Your task to perform on an android device: Search for the best rated lawnmower on Lowes.com Image 0: 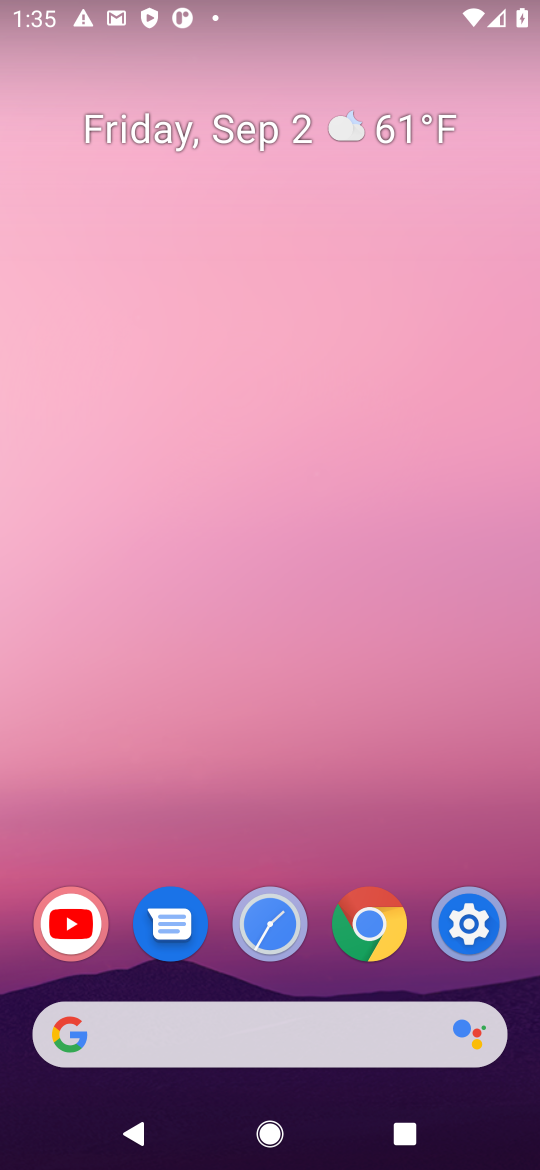
Step 0: click (368, 1033)
Your task to perform on an android device: Search for the best rated lawnmower on Lowes.com Image 1: 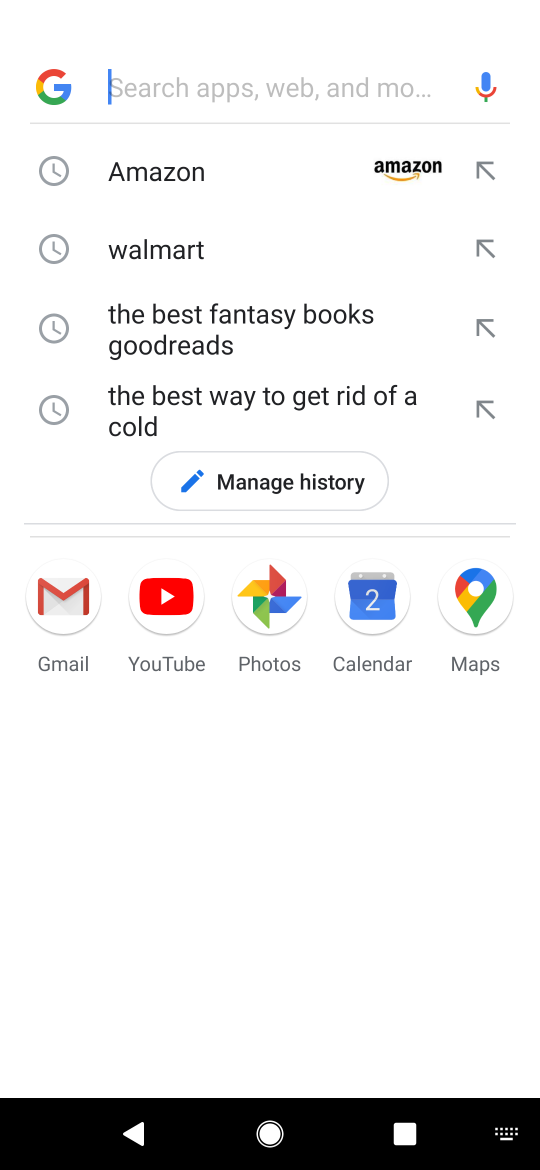
Step 1: press enter
Your task to perform on an android device: Search for the best rated lawnmower on Lowes.com Image 2: 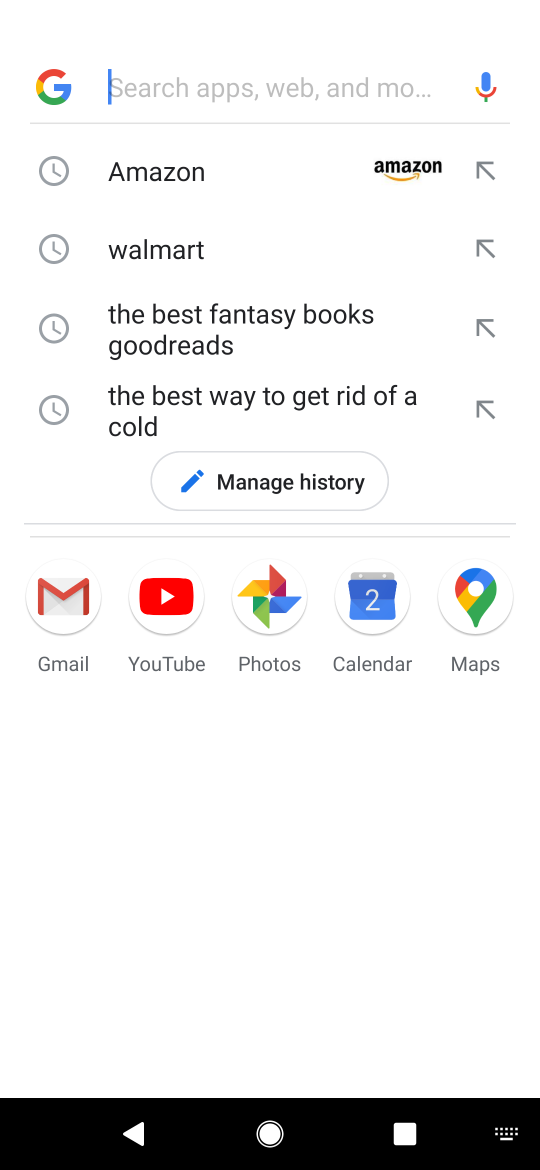
Step 2: type "lowes.com"
Your task to perform on an android device: Search for the best rated lawnmower on Lowes.com Image 3: 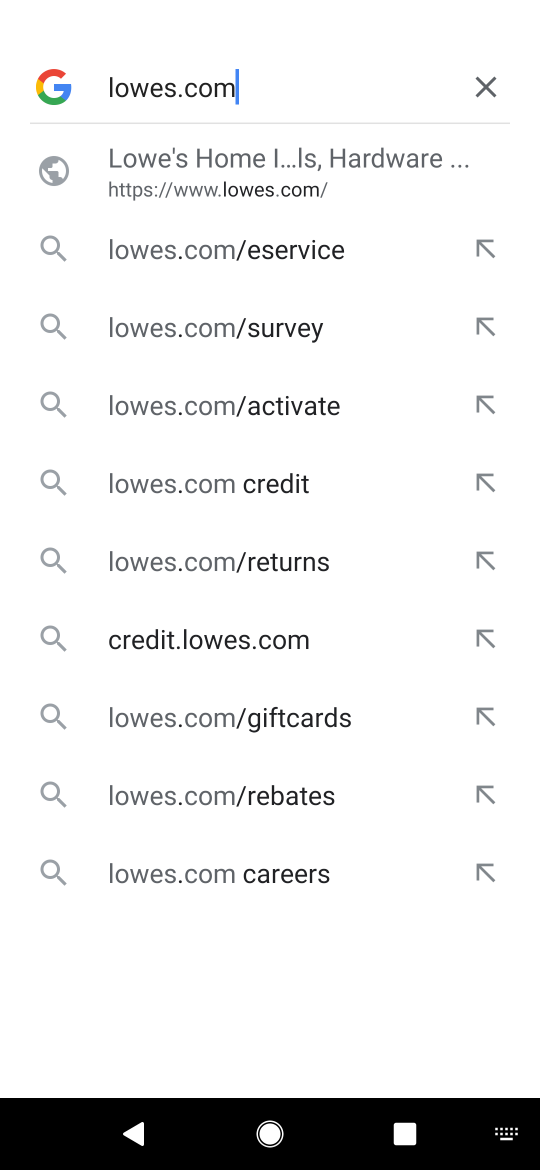
Step 3: click (292, 170)
Your task to perform on an android device: Search for the best rated lawnmower on Lowes.com Image 4: 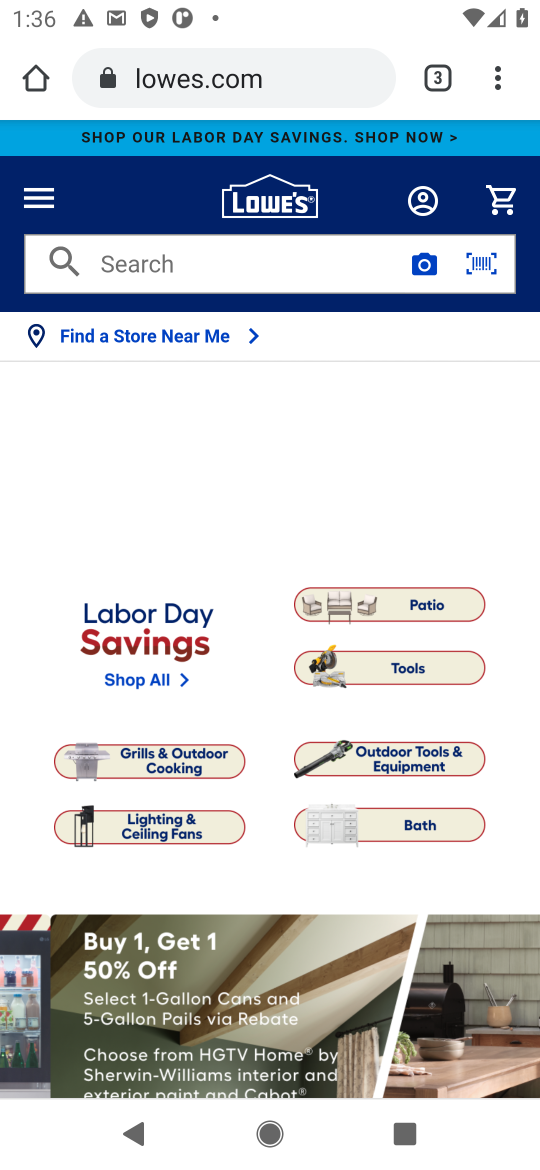
Step 4: click (267, 252)
Your task to perform on an android device: Search for the best rated lawnmower on Lowes.com Image 5: 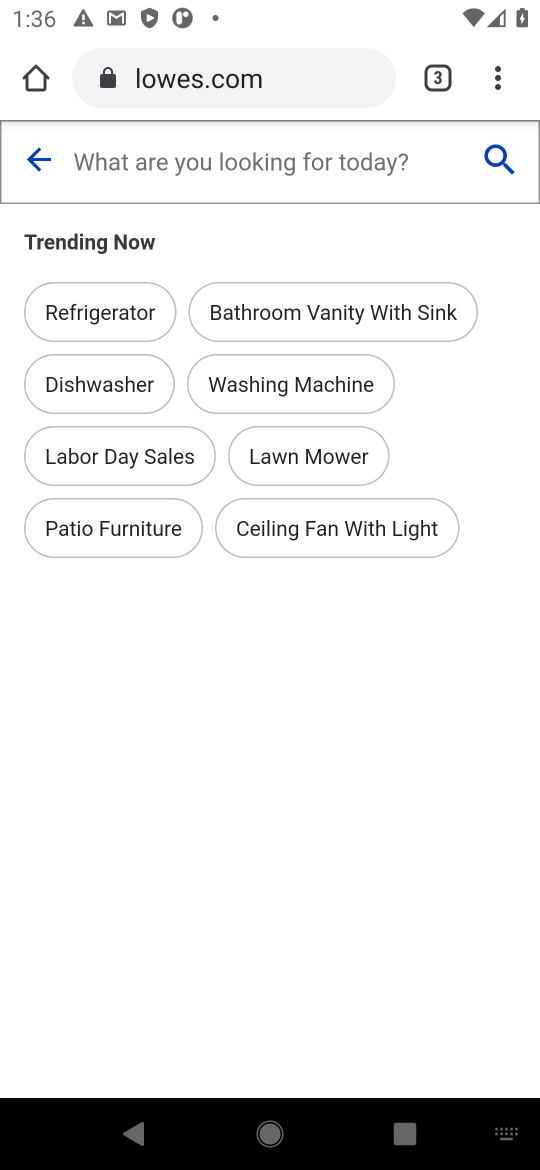
Step 5: type "lawnmower"
Your task to perform on an android device: Search for the best rated lawnmower on Lowes.com Image 6: 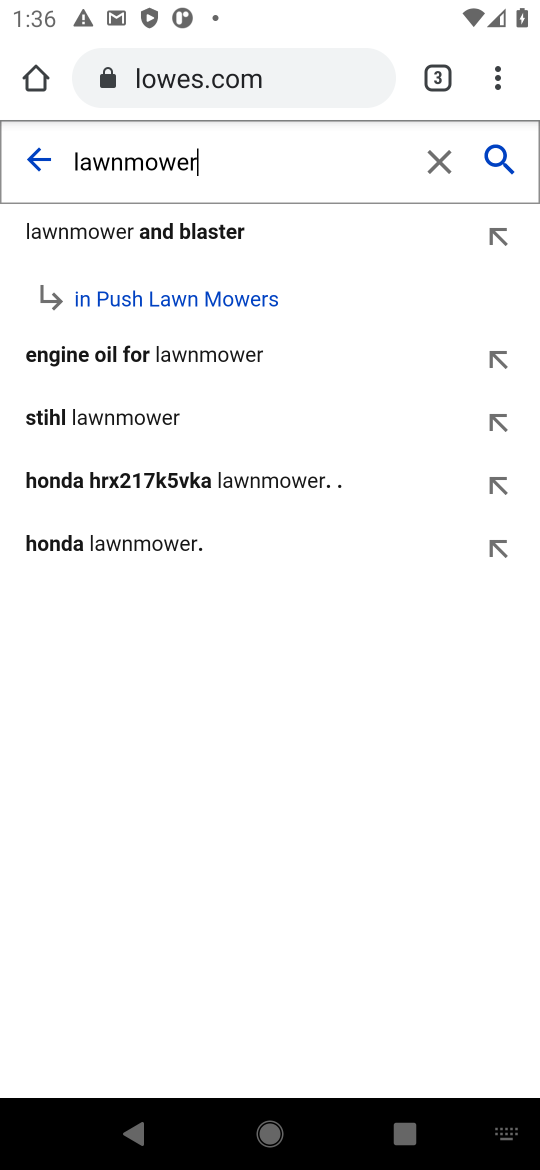
Step 6: click (480, 158)
Your task to perform on an android device: Search for the best rated lawnmower on Lowes.com Image 7: 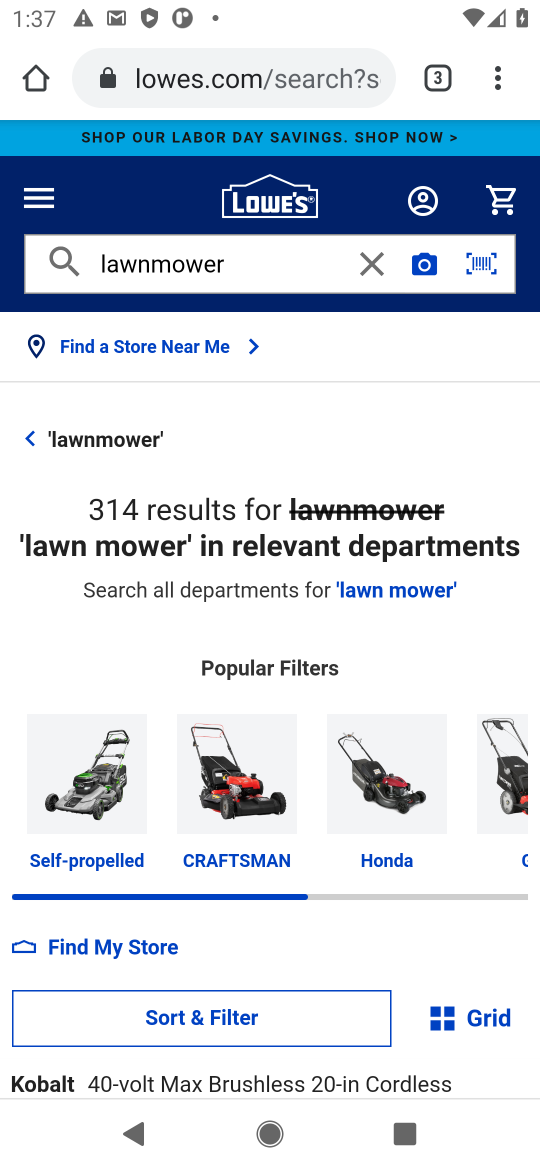
Step 7: task complete